Your task to perform on an android device: Go to Maps Image 0: 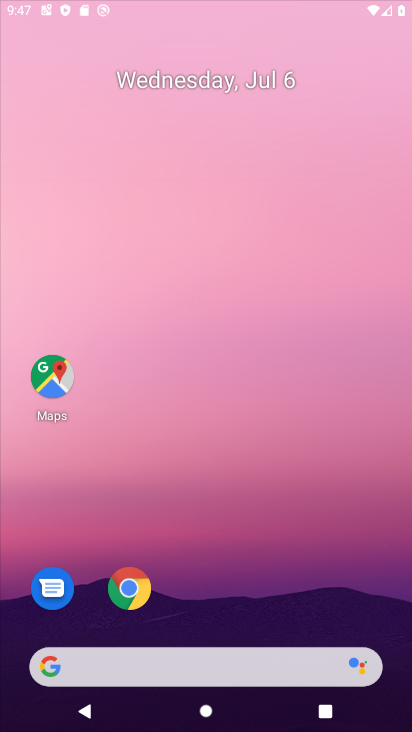
Step 0: click (236, 144)
Your task to perform on an android device: Go to Maps Image 1: 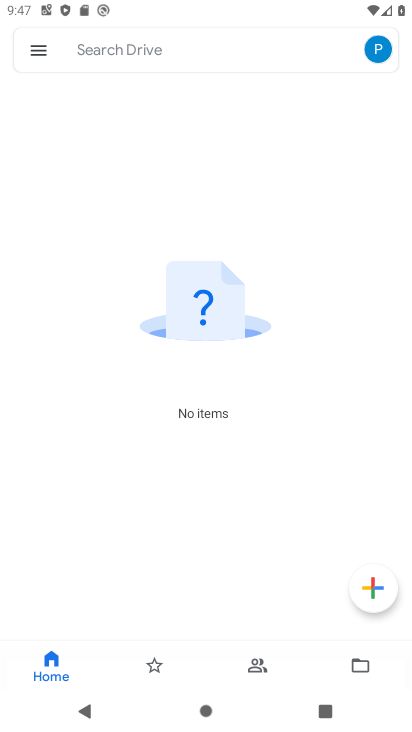
Step 1: press back button
Your task to perform on an android device: Go to Maps Image 2: 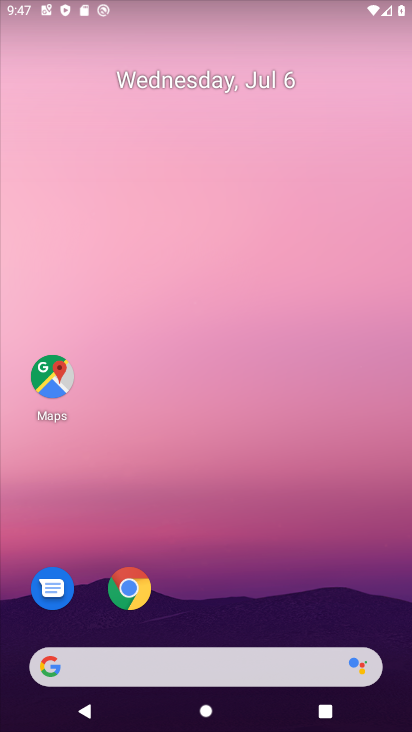
Step 2: drag from (262, 554) to (322, 8)
Your task to perform on an android device: Go to Maps Image 3: 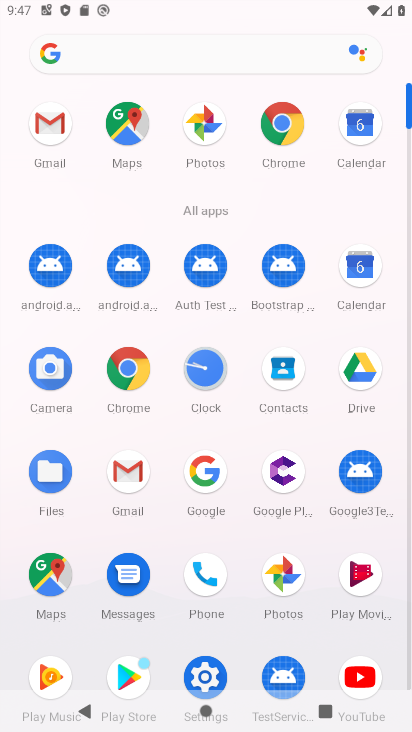
Step 3: click (135, 122)
Your task to perform on an android device: Go to Maps Image 4: 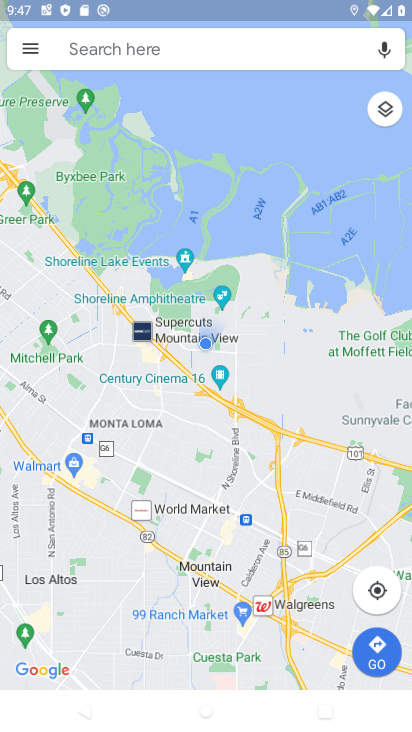
Step 4: task complete